Your task to perform on an android device: Open wifi settings Image 0: 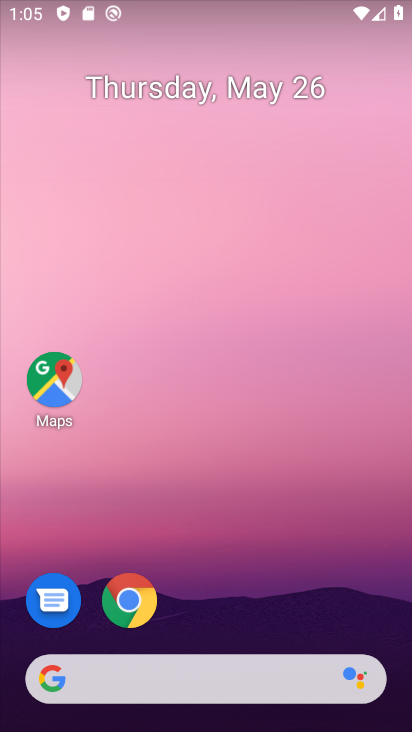
Step 0: drag from (265, 583) to (165, 10)
Your task to perform on an android device: Open wifi settings Image 1: 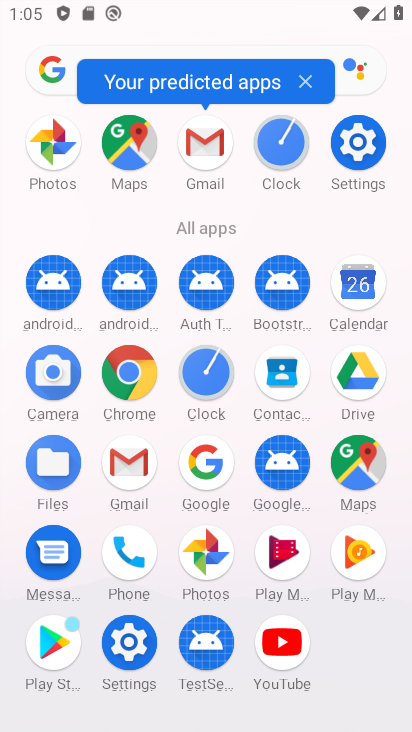
Step 1: click (344, 148)
Your task to perform on an android device: Open wifi settings Image 2: 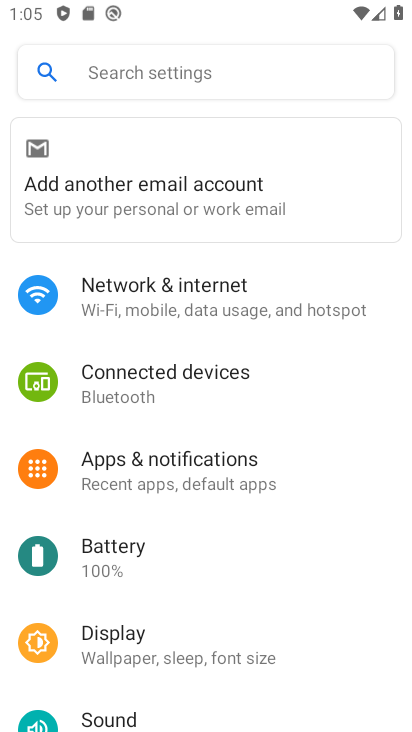
Step 2: click (217, 314)
Your task to perform on an android device: Open wifi settings Image 3: 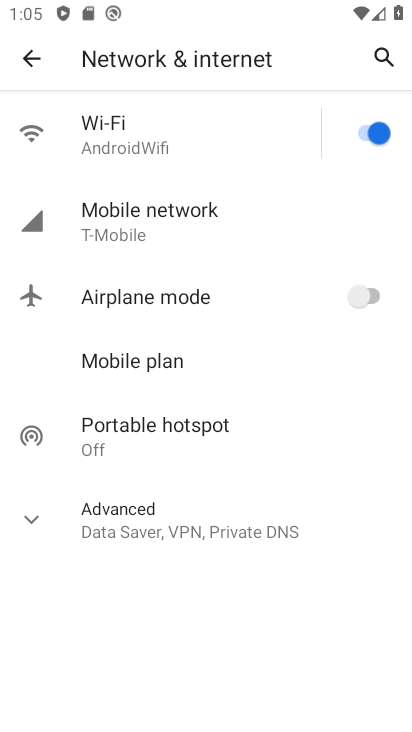
Step 3: task complete